Your task to perform on an android device: empty trash in google photos Image 0: 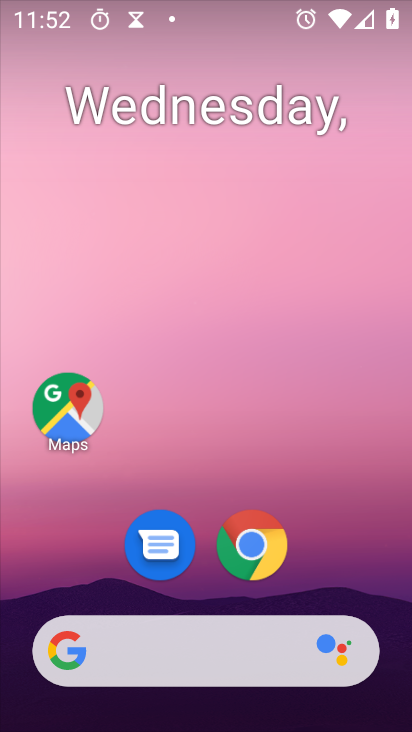
Step 0: press home button
Your task to perform on an android device: empty trash in google photos Image 1: 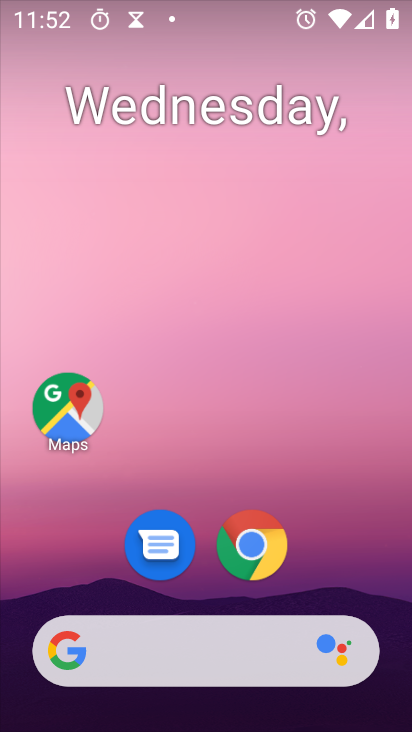
Step 1: drag from (159, 646) to (263, 141)
Your task to perform on an android device: empty trash in google photos Image 2: 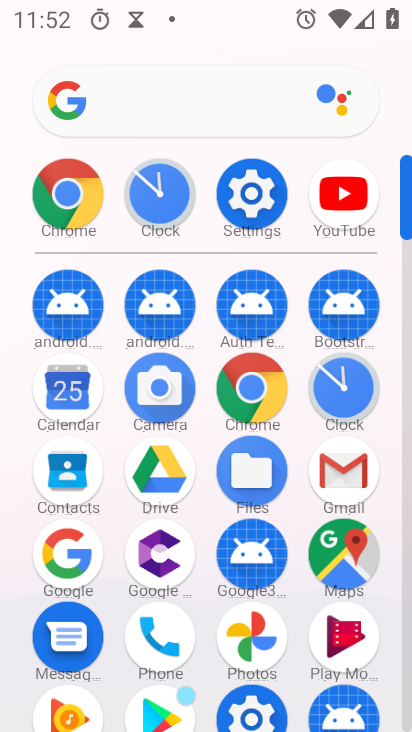
Step 2: click (250, 641)
Your task to perform on an android device: empty trash in google photos Image 3: 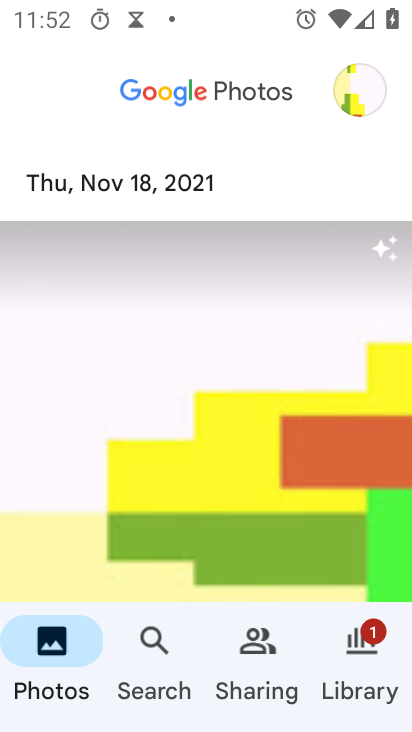
Step 3: click (337, 684)
Your task to perform on an android device: empty trash in google photos Image 4: 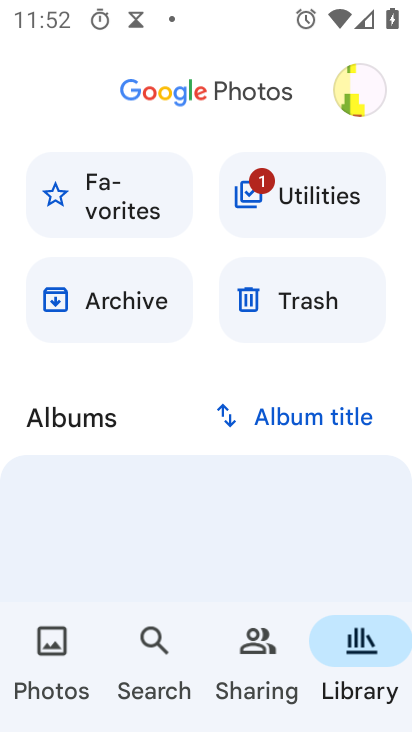
Step 4: click (310, 302)
Your task to perform on an android device: empty trash in google photos Image 5: 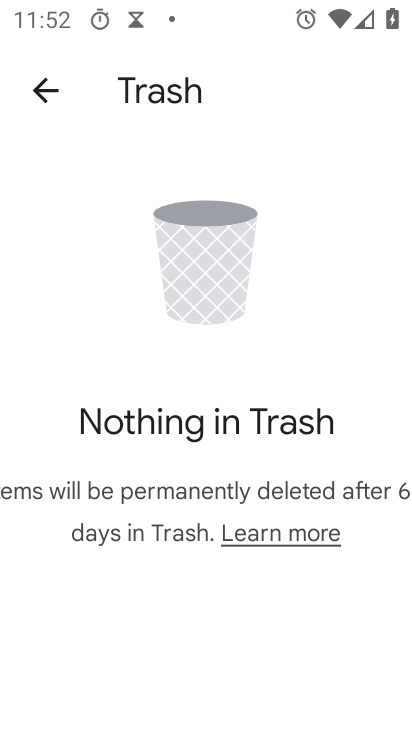
Step 5: task complete